Your task to perform on an android device: Search for seafood restaurants on Google Maps Image 0: 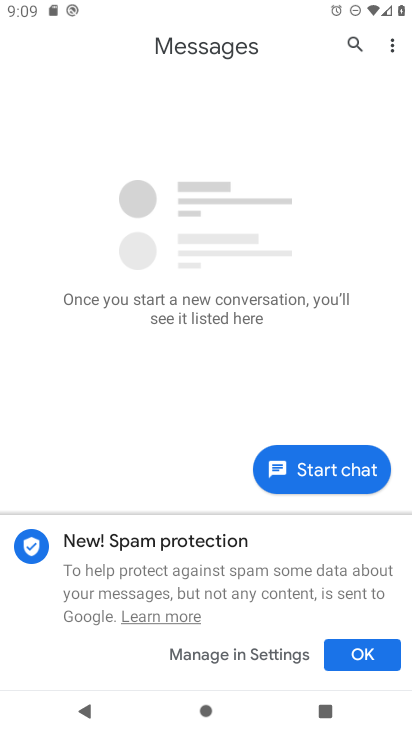
Step 0: press home button
Your task to perform on an android device: Search for seafood restaurants on Google Maps Image 1: 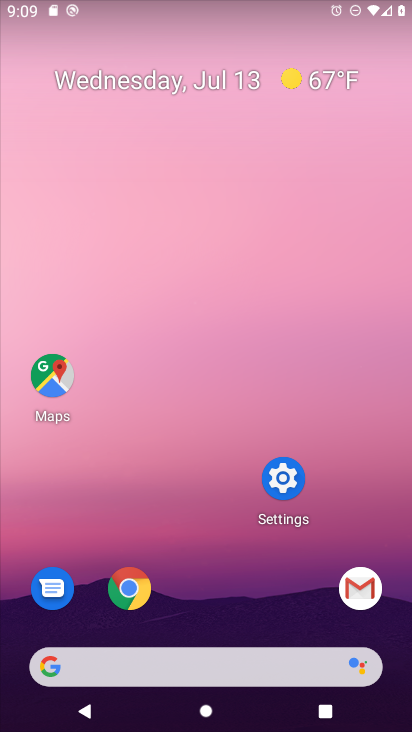
Step 1: drag from (241, 691) to (382, 12)
Your task to perform on an android device: Search for seafood restaurants on Google Maps Image 2: 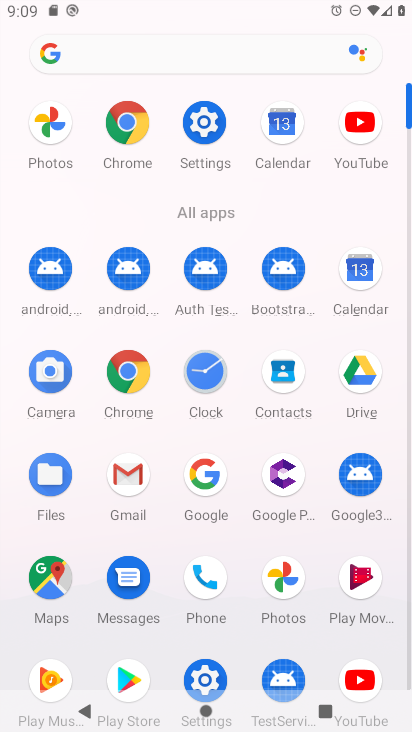
Step 2: click (66, 572)
Your task to perform on an android device: Search for seafood restaurants on Google Maps Image 3: 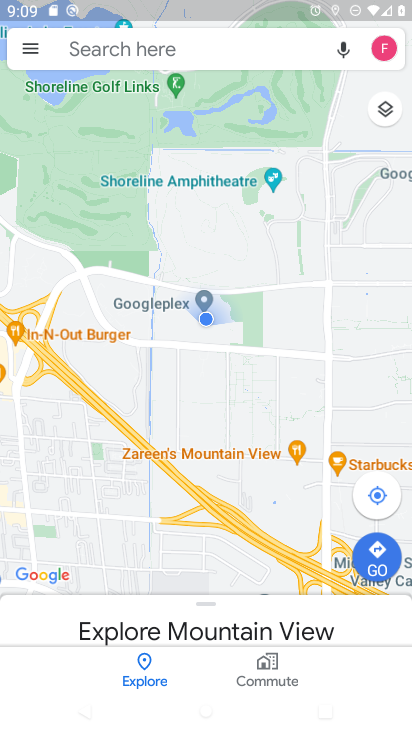
Step 3: click (147, 51)
Your task to perform on an android device: Search for seafood restaurants on Google Maps Image 4: 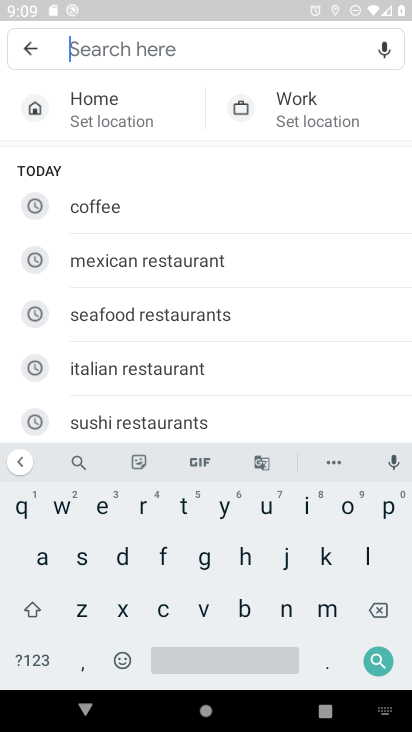
Step 4: click (151, 330)
Your task to perform on an android device: Search for seafood restaurants on Google Maps Image 5: 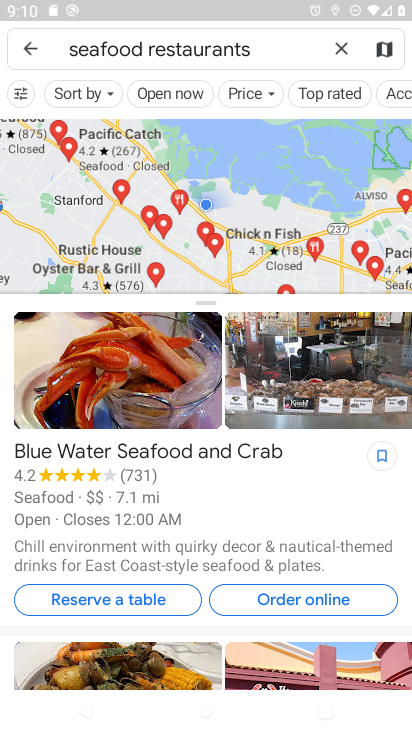
Step 5: task complete